Your task to perform on an android device: add a contact in the contacts app Image 0: 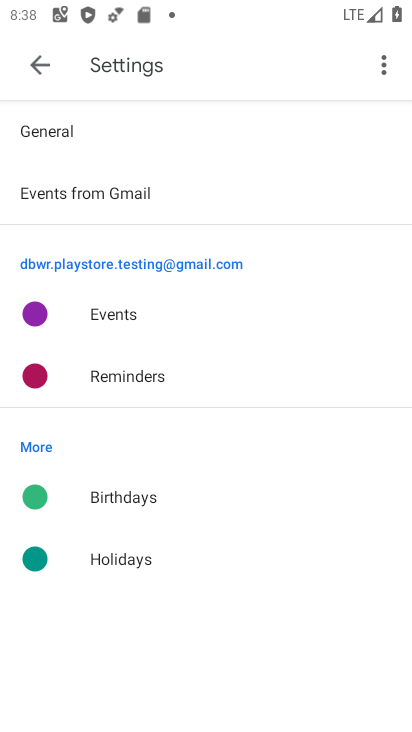
Step 0: press back button
Your task to perform on an android device: add a contact in the contacts app Image 1: 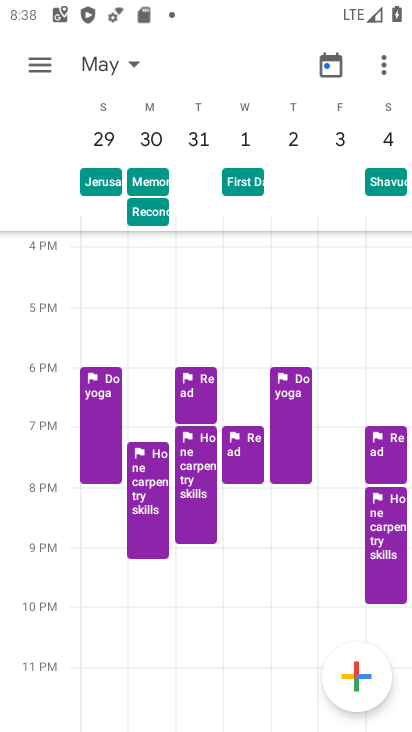
Step 1: press home button
Your task to perform on an android device: add a contact in the contacts app Image 2: 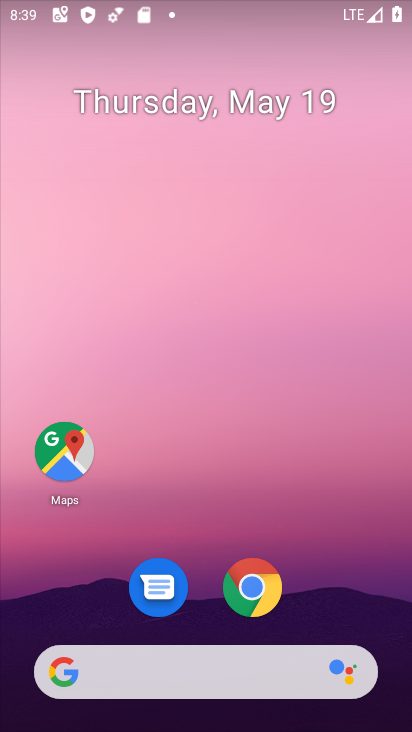
Step 2: drag from (350, 583) to (247, 41)
Your task to perform on an android device: add a contact in the contacts app Image 3: 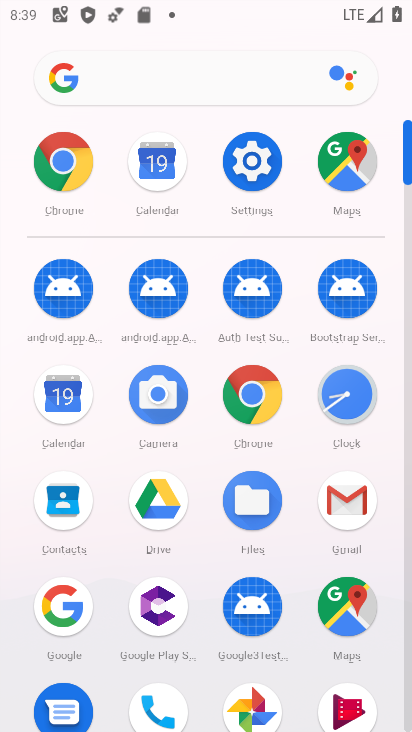
Step 3: click (66, 490)
Your task to perform on an android device: add a contact in the contacts app Image 4: 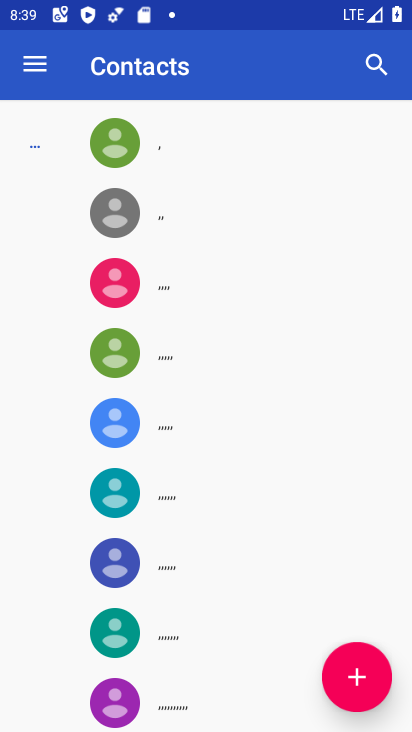
Step 4: task complete